Your task to perform on an android device: snooze an email in the gmail app Image 0: 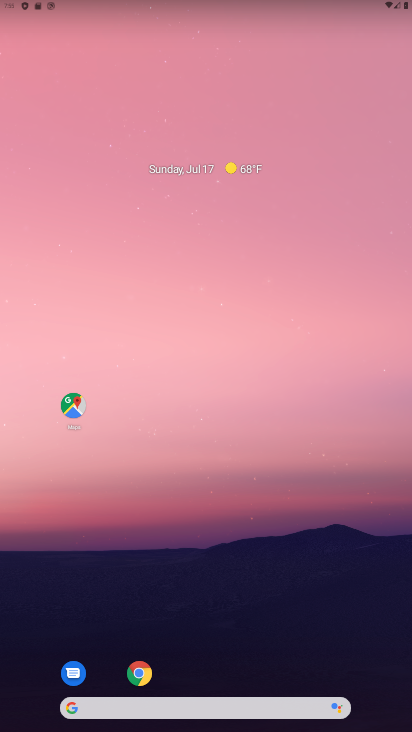
Step 0: drag from (300, 675) to (216, 14)
Your task to perform on an android device: snooze an email in the gmail app Image 1: 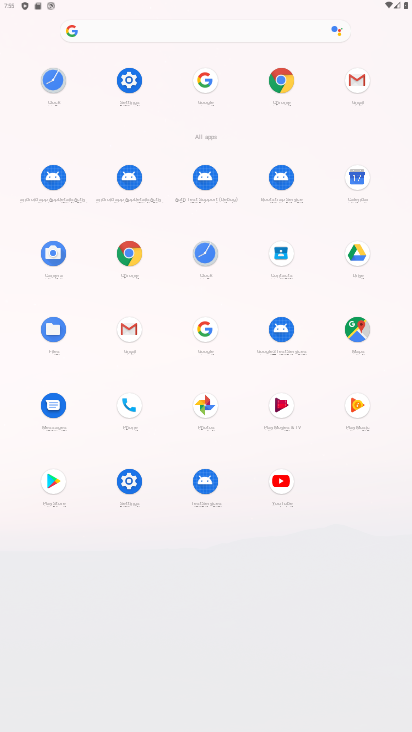
Step 1: click (365, 91)
Your task to perform on an android device: snooze an email in the gmail app Image 2: 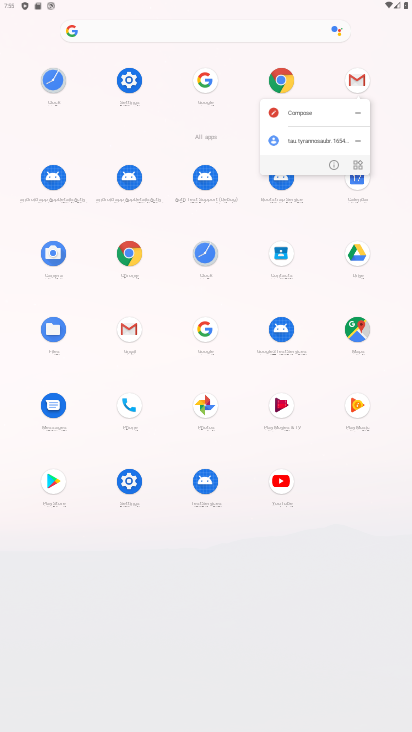
Step 2: click (358, 76)
Your task to perform on an android device: snooze an email in the gmail app Image 3: 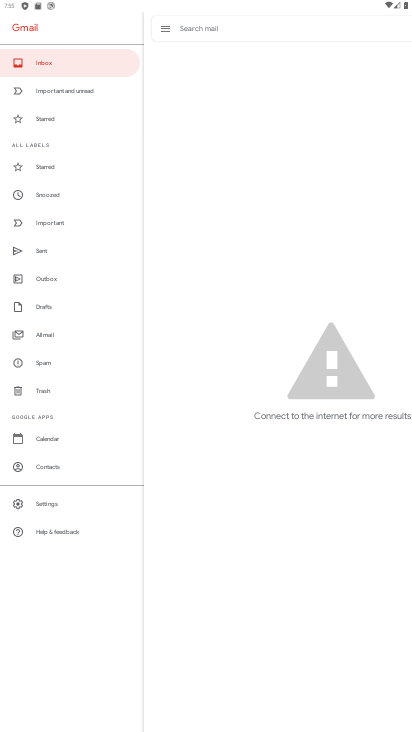
Step 3: task complete